Your task to perform on an android device: Open the map Image 0: 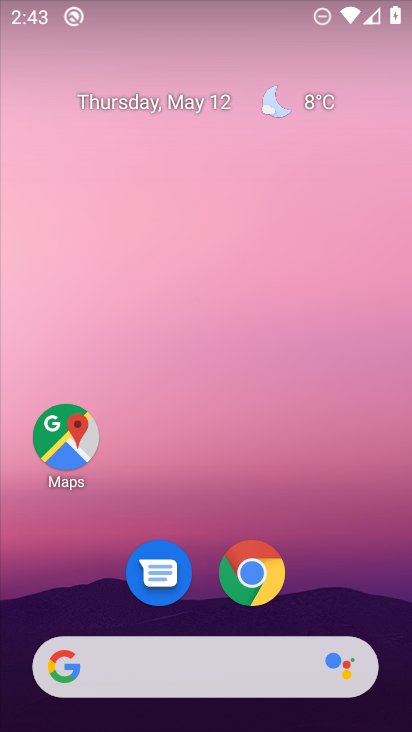
Step 0: drag from (374, 649) to (214, 164)
Your task to perform on an android device: Open the map Image 1: 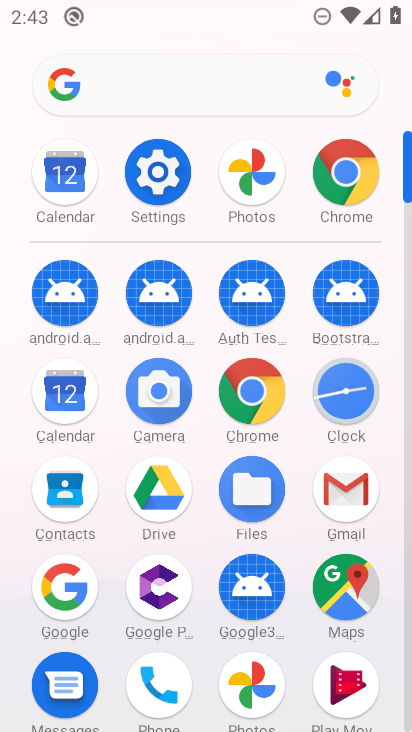
Step 1: click (331, 583)
Your task to perform on an android device: Open the map Image 2: 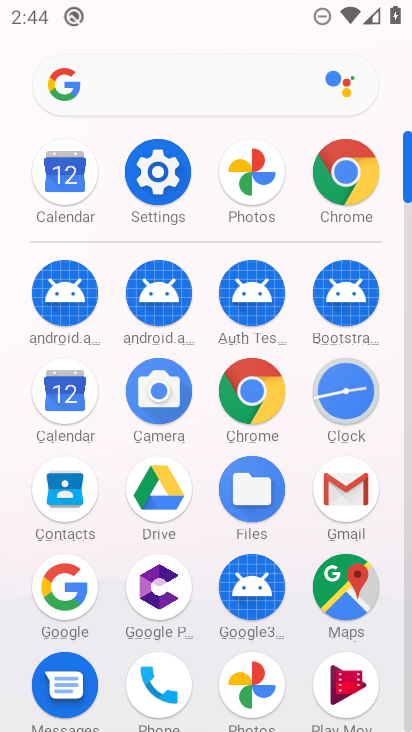
Step 2: click (334, 583)
Your task to perform on an android device: Open the map Image 3: 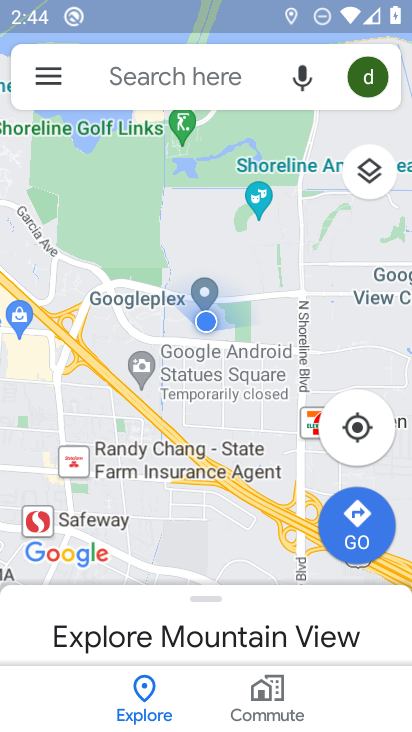
Step 3: task complete